Your task to perform on an android device: Go to privacy settings Image 0: 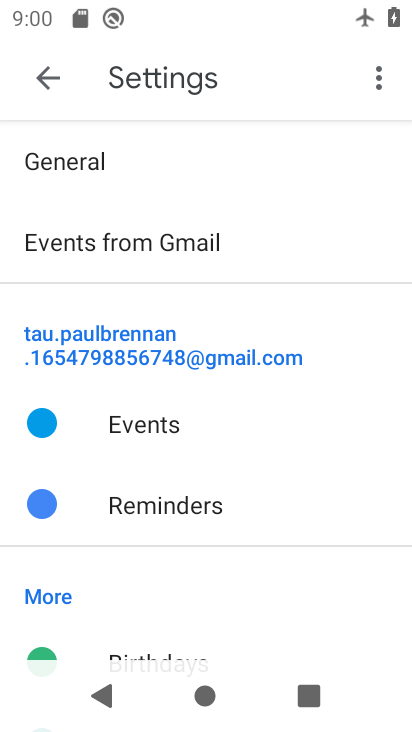
Step 0: press home button
Your task to perform on an android device: Go to privacy settings Image 1: 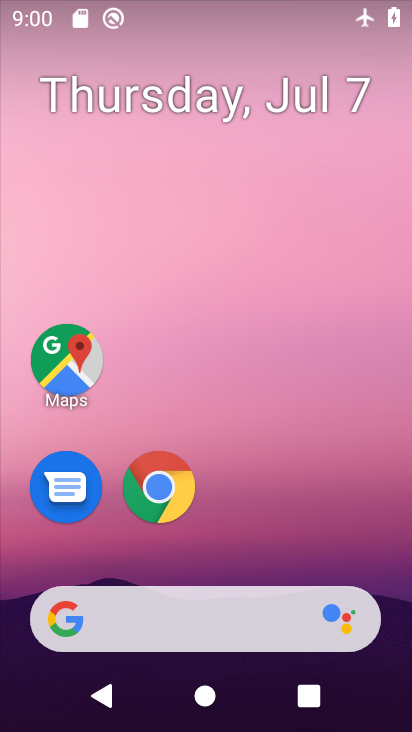
Step 1: drag from (368, 529) to (356, 148)
Your task to perform on an android device: Go to privacy settings Image 2: 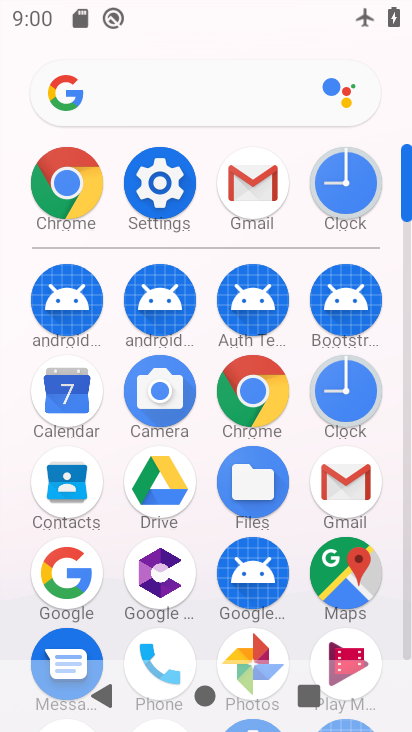
Step 2: click (173, 203)
Your task to perform on an android device: Go to privacy settings Image 3: 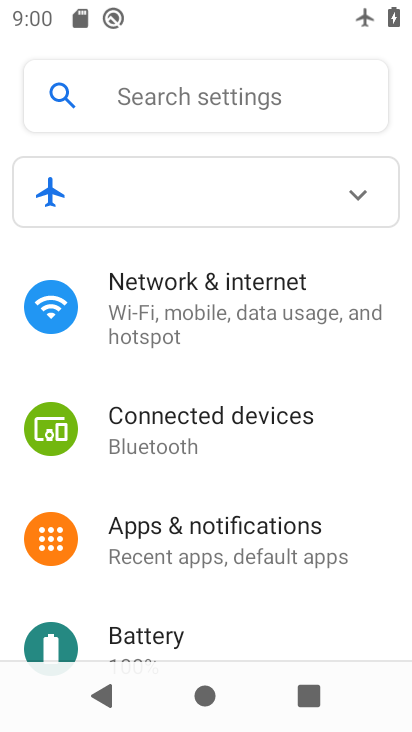
Step 3: drag from (368, 486) to (367, 326)
Your task to perform on an android device: Go to privacy settings Image 4: 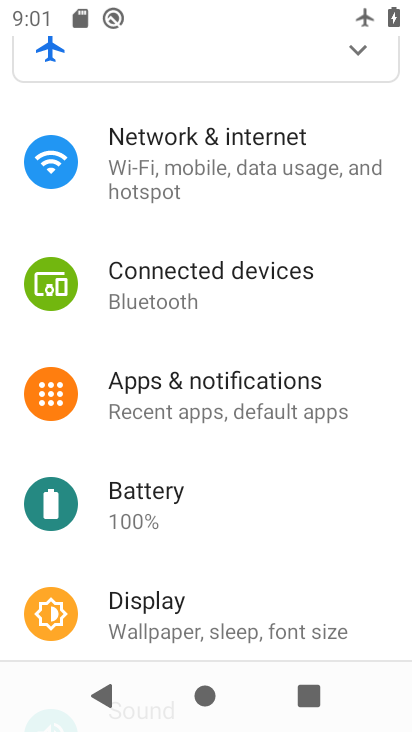
Step 4: drag from (348, 527) to (360, 387)
Your task to perform on an android device: Go to privacy settings Image 5: 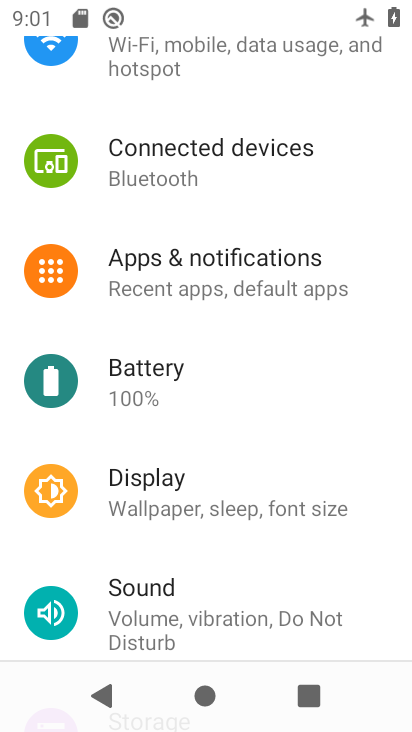
Step 5: drag from (360, 579) to (366, 445)
Your task to perform on an android device: Go to privacy settings Image 6: 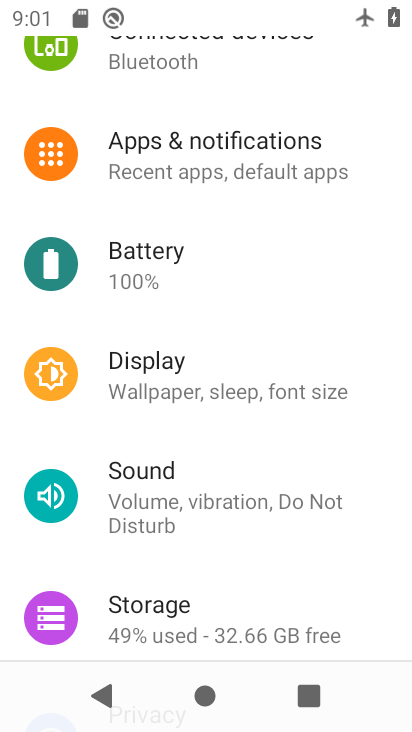
Step 6: drag from (366, 568) to (374, 442)
Your task to perform on an android device: Go to privacy settings Image 7: 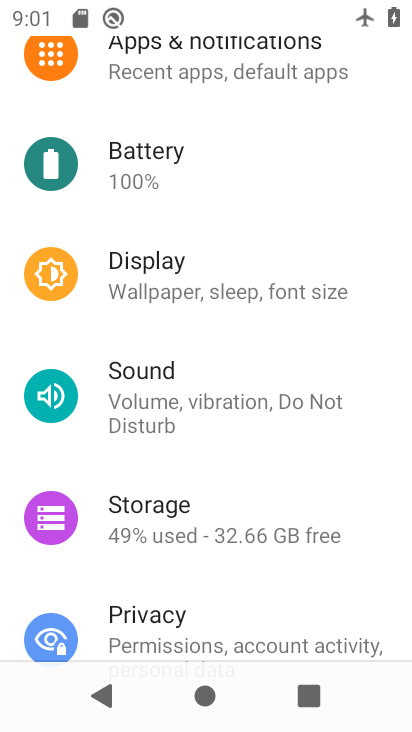
Step 7: drag from (376, 561) to (386, 456)
Your task to perform on an android device: Go to privacy settings Image 8: 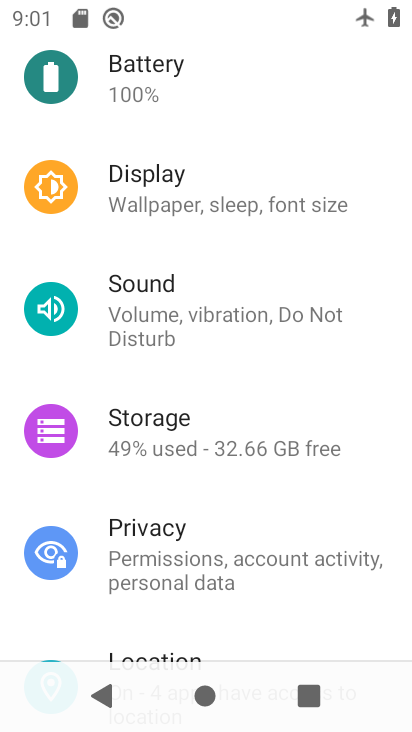
Step 8: drag from (377, 612) to (375, 504)
Your task to perform on an android device: Go to privacy settings Image 9: 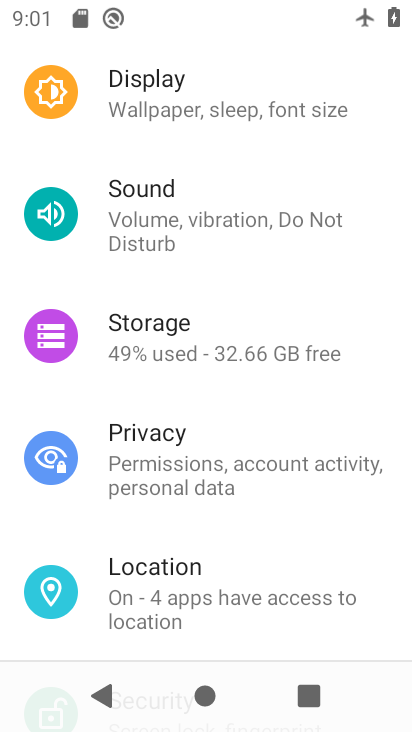
Step 9: drag from (385, 628) to (385, 516)
Your task to perform on an android device: Go to privacy settings Image 10: 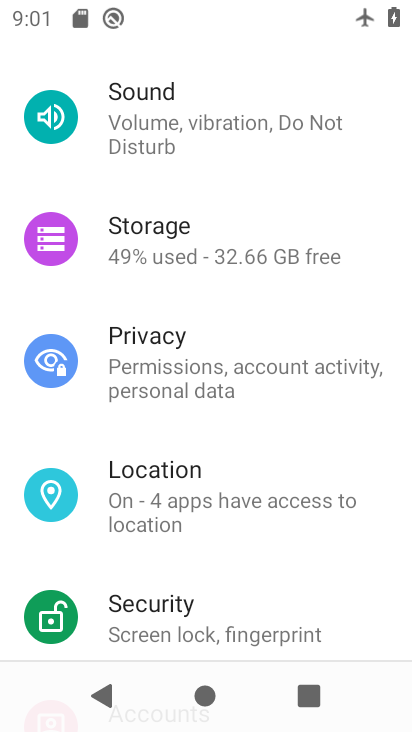
Step 10: drag from (373, 606) to (368, 485)
Your task to perform on an android device: Go to privacy settings Image 11: 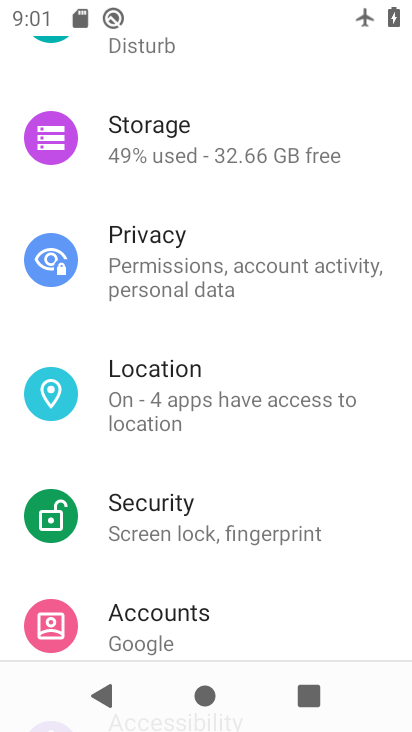
Step 11: drag from (360, 621) to (357, 506)
Your task to perform on an android device: Go to privacy settings Image 12: 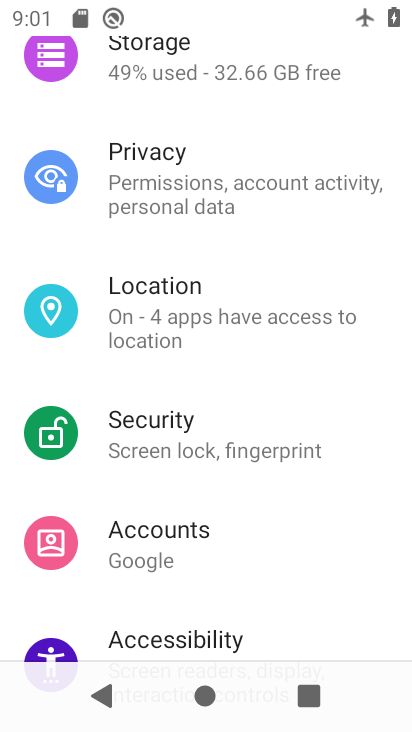
Step 12: click (206, 167)
Your task to perform on an android device: Go to privacy settings Image 13: 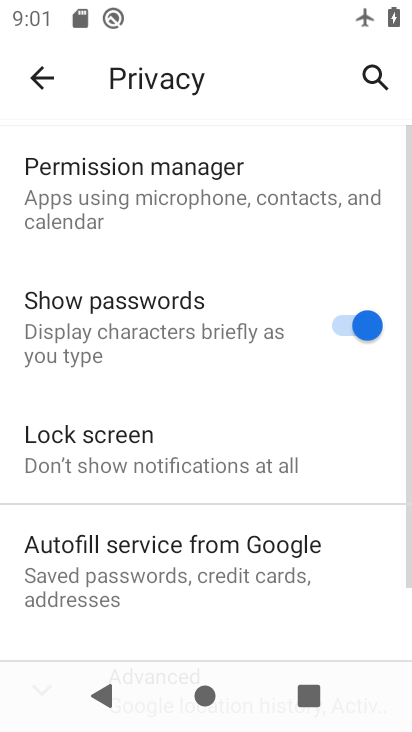
Step 13: task complete